Your task to perform on an android device: Search for the ikea sjalv lamp Image 0: 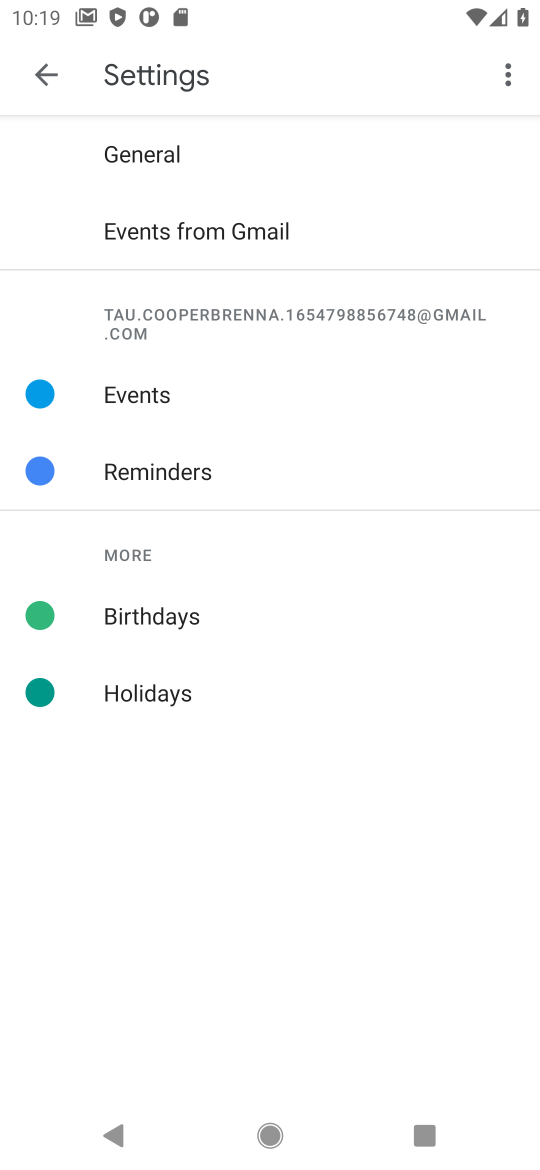
Step 0: press back button
Your task to perform on an android device: Search for the ikea sjalv lamp Image 1: 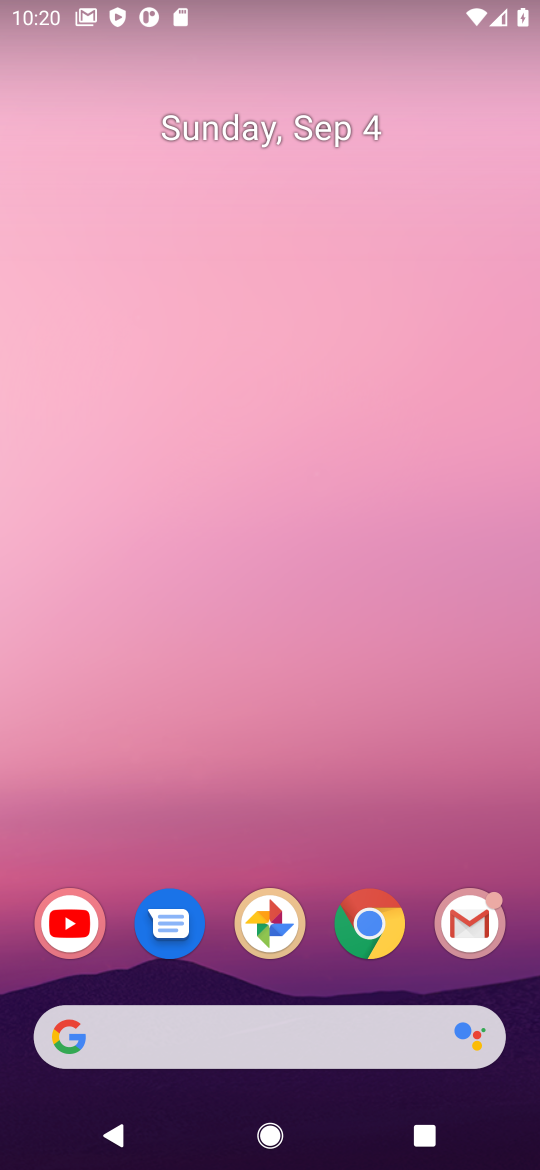
Step 1: click (373, 910)
Your task to perform on an android device: Search for the ikea sjalv lamp Image 2: 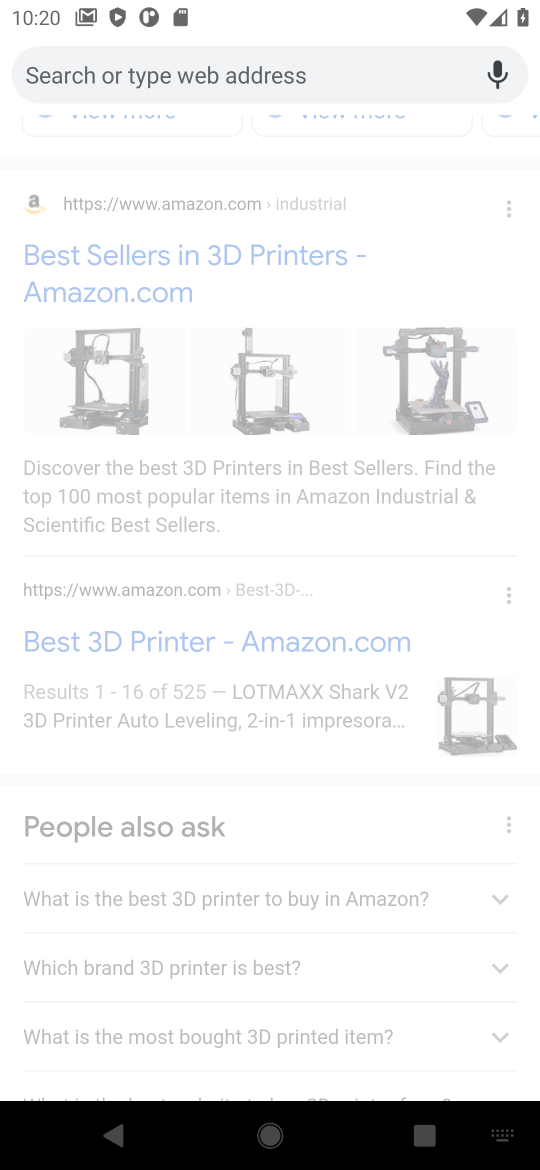
Step 2: type "the ikea sjalv lamp"
Your task to perform on an android device: Search for the ikea sjalv lamp Image 3: 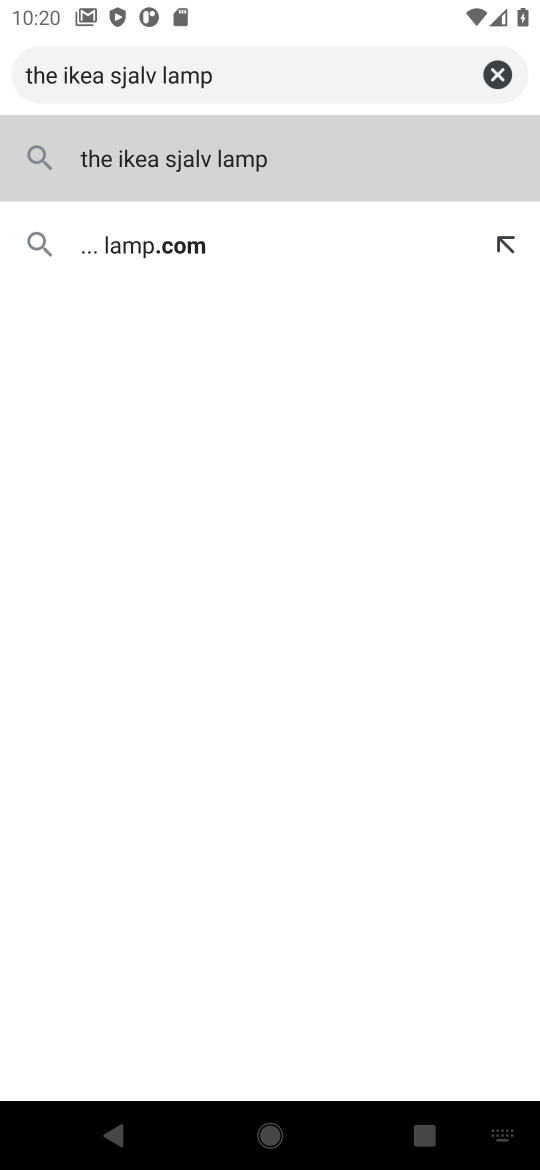
Step 3: click (219, 130)
Your task to perform on an android device: Search for the ikea sjalv lamp Image 4: 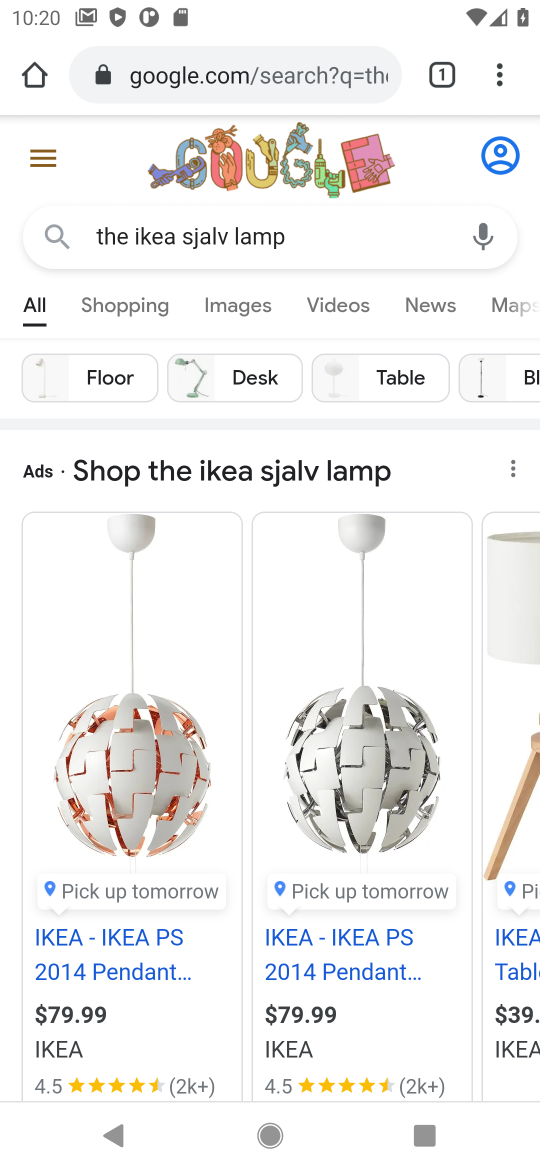
Step 4: task complete